Your task to perform on an android device: Open Chrome and go to settings Image 0: 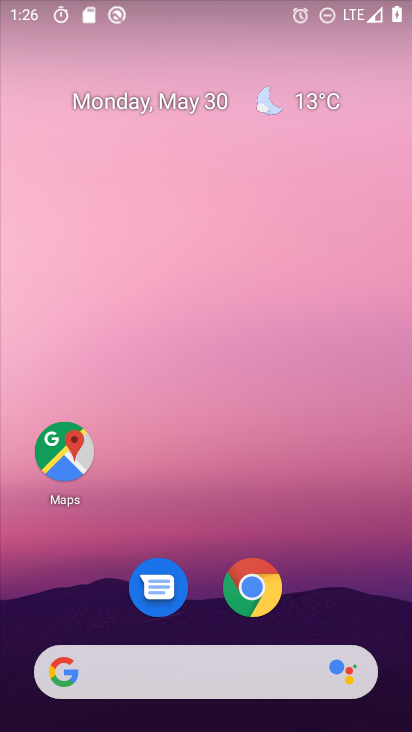
Step 0: click (256, 581)
Your task to perform on an android device: Open Chrome and go to settings Image 1: 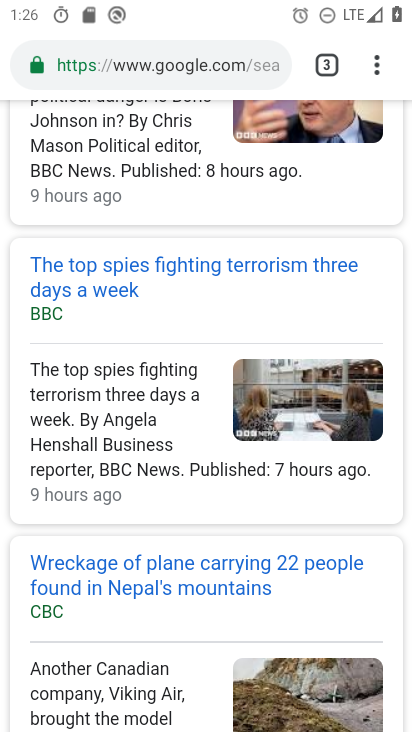
Step 1: task complete